Your task to perform on an android device: Look up "custom art" on Etsy Image 0: 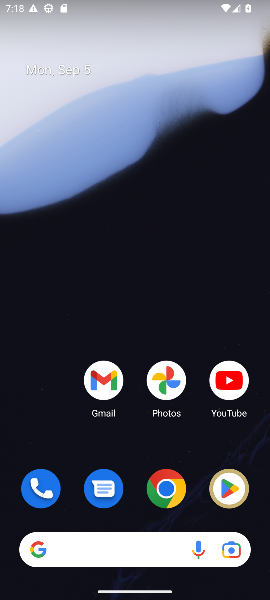
Step 0: click (168, 488)
Your task to perform on an android device: Look up "custom art" on Etsy Image 1: 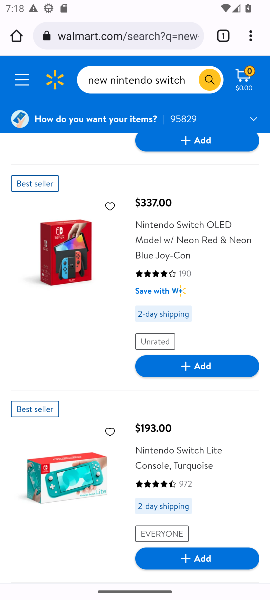
Step 1: click (147, 42)
Your task to perform on an android device: Look up "custom art" on Etsy Image 2: 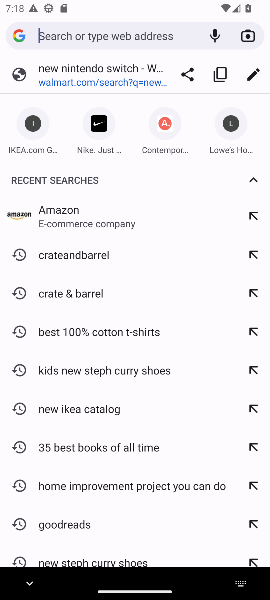
Step 2: type "etsy"
Your task to perform on an android device: Look up "custom art" on Etsy Image 3: 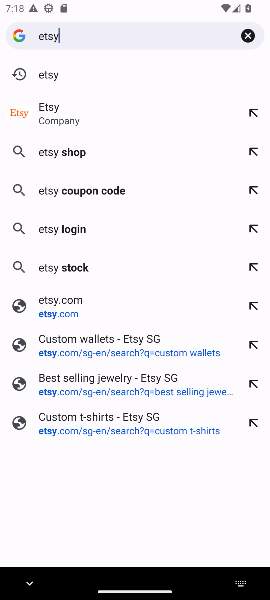
Step 3: press enter
Your task to perform on an android device: Look up "custom art" on Etsy Image 4: 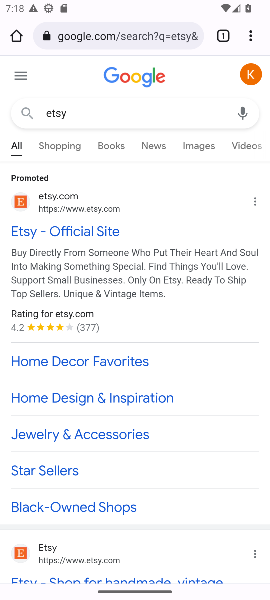
Step 4: click (95, 231)
Your task to perform on an android device: Look up "custom art" on Etsy Image 5: 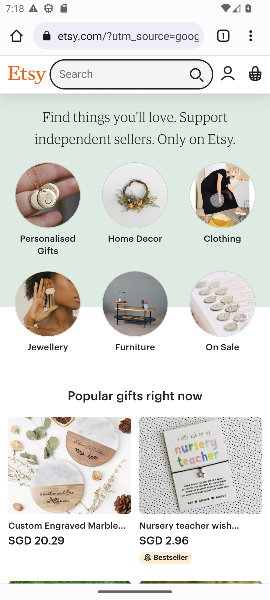
Step 5: click (135, 67)
Your task to perform on an android device: Look up "custom art" on Etsy Image 6: 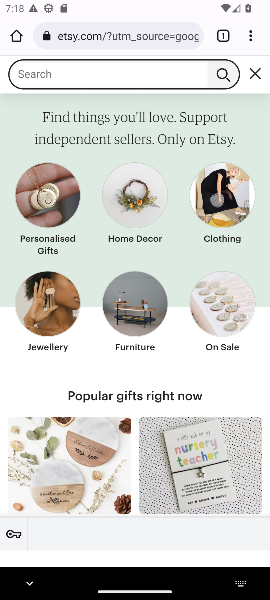
Step 6: type "custom art"
Your task to perform on an android device: Look up "custom art" on Etsy Image 7: 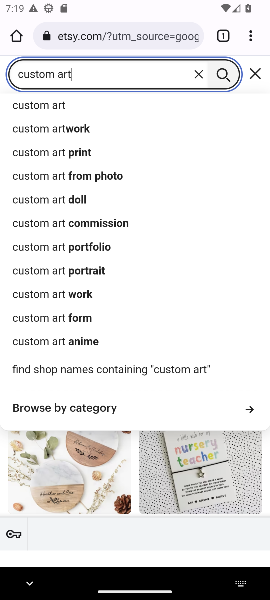
Step 7: press enter
Your task to perform on an android device: Look up "custom art" on Etsy Image 8: 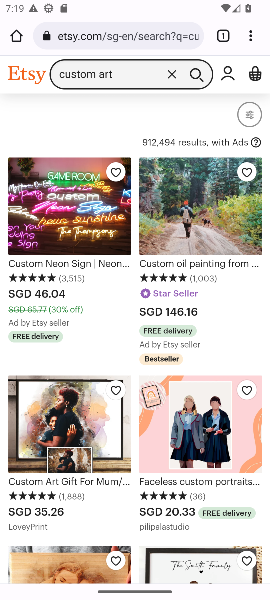
Step 8: task complete